Your task to perform on an android device: Open the Play Movies app and select the watchlist tab. Image 0: 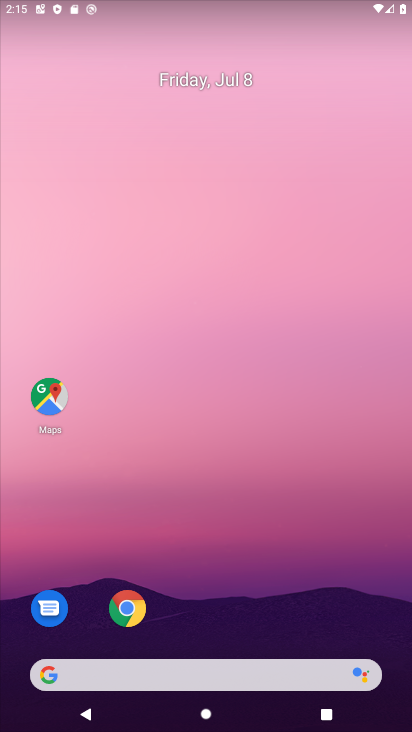
Step 0: drag from (353, 675) to (363, 3)
Your task to perform on an android device: Open the Play Movies app and select the watchlist tab. Image 1: 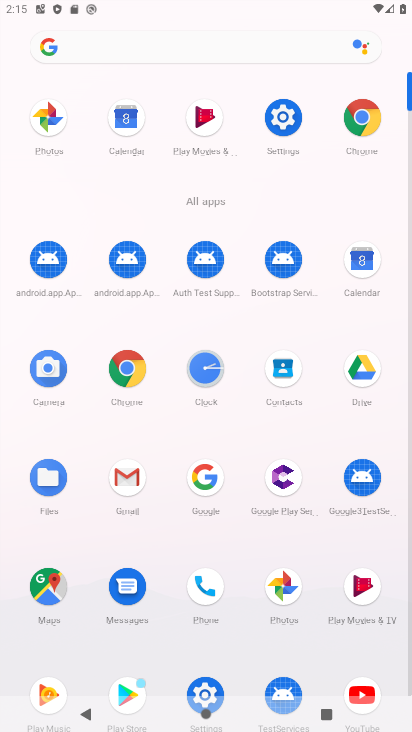
Step 1: click (359, 590)
Your task to perform on an android device: Open the Play Movies app and select the watchlist tab. Image 2: 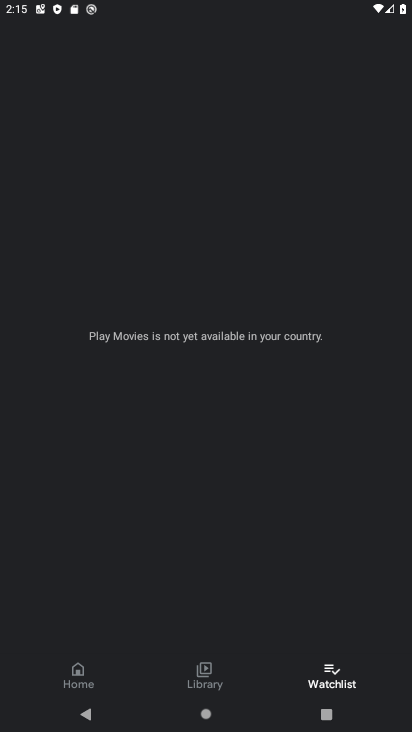
Step 2: click (341, 673)
Your task to perform on an android device: Open the Play Movies app and select the watchlist tab. Image 3: 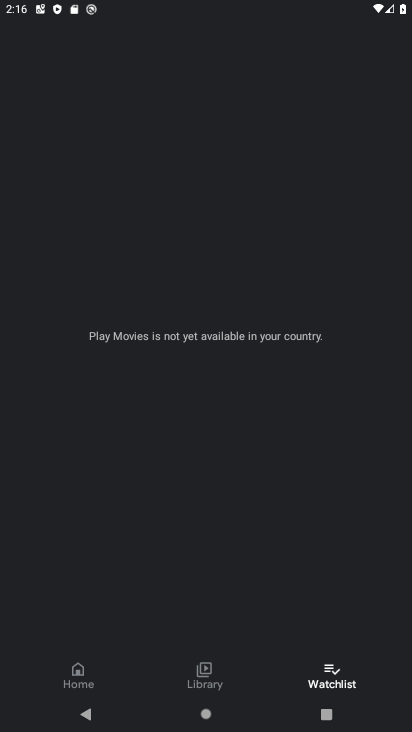
Step 3: task complete